Your task to perform on an android device: check data usage Image 0: 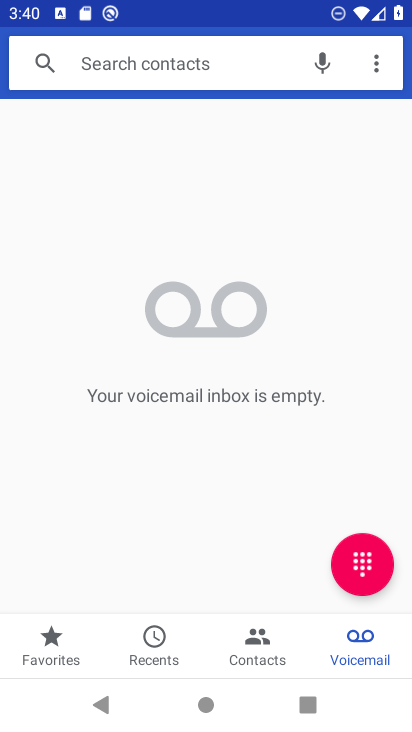
Step 0: press home button
Your task to perform on an android device: check data usage Image 1: 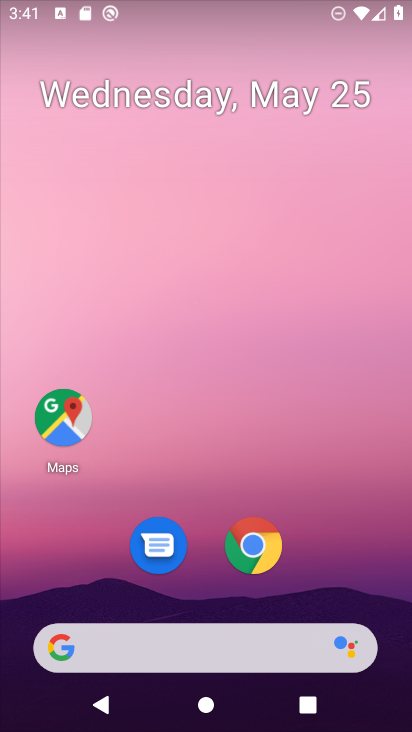
Step 1: drag from (347, 604) to (364, 139)
Your task to perform on an android device: check data usage Image 2: 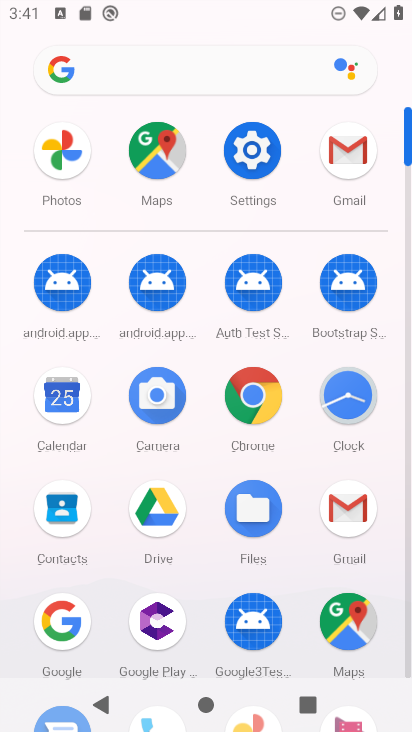
Step 2: click (266, 181)
Your task to perform on an android device: check data usage Image 3: 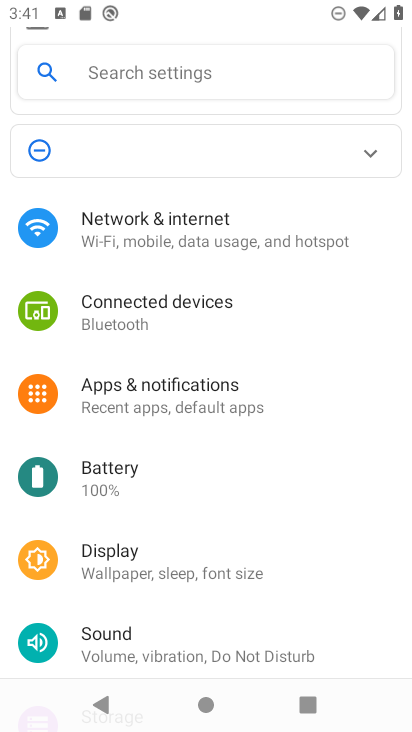
Step 3: click (254, 219)
Your task to perform on an android device: check data usage Image 4: 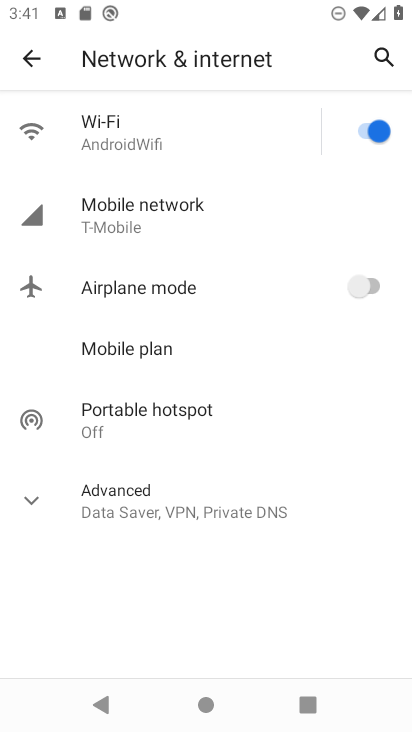
Step 4: click (171, 208)
Your task to perform on an android device: check data usage Image 5: 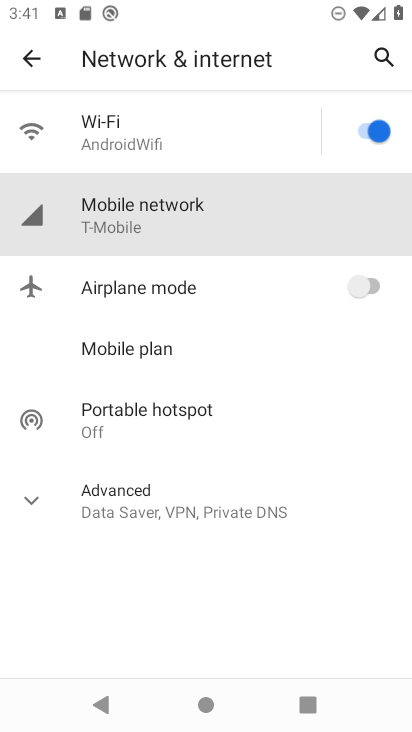
Step 5: task complete